Your task to perform on an android device: open app "Venmo" (install if not already installed), go to login, and select forgot password Image 0: 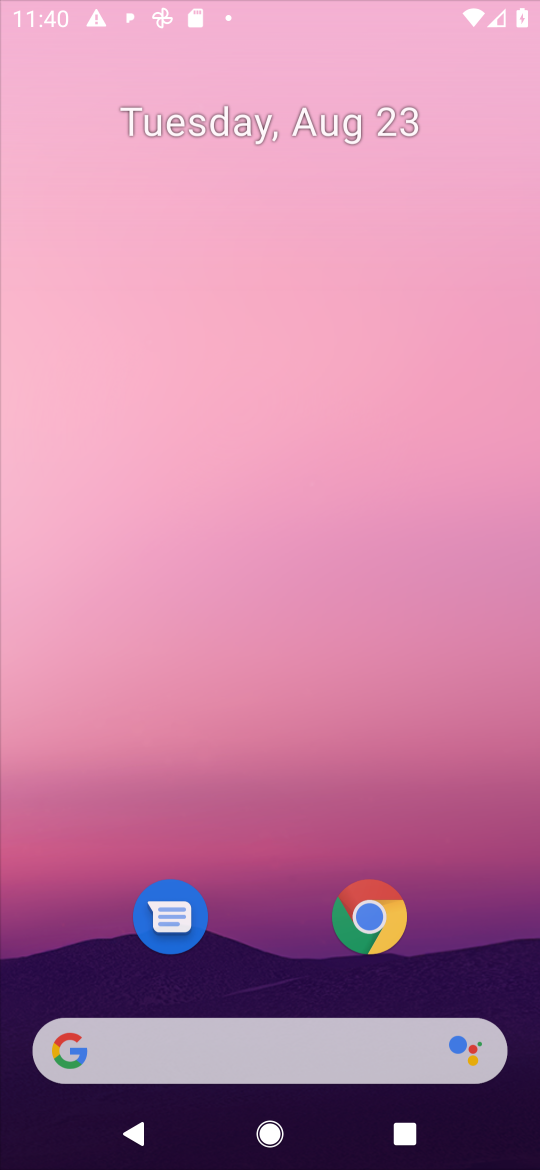
Step 0: press home button
Your task to perform on an android device: open app "Venmo" (install if not already installed), go to login, and select forgot password Image 1: 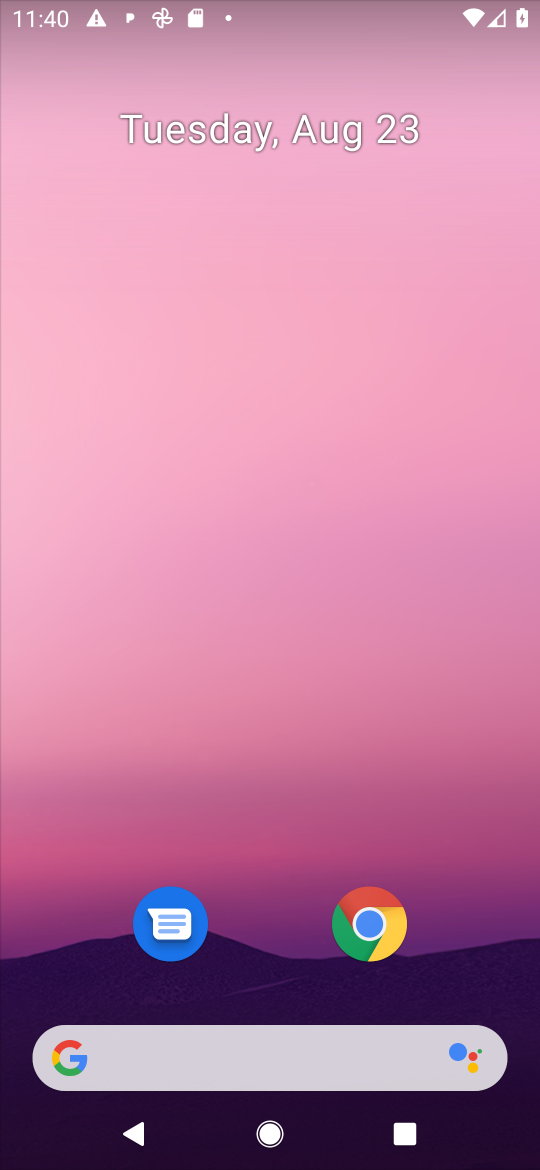
Step 1: drag from (461, 969) to (446, 102)
Your task to perform on an android device: open app "Venmo" (install if not already installed), go to login, and select forgot password Image 2: 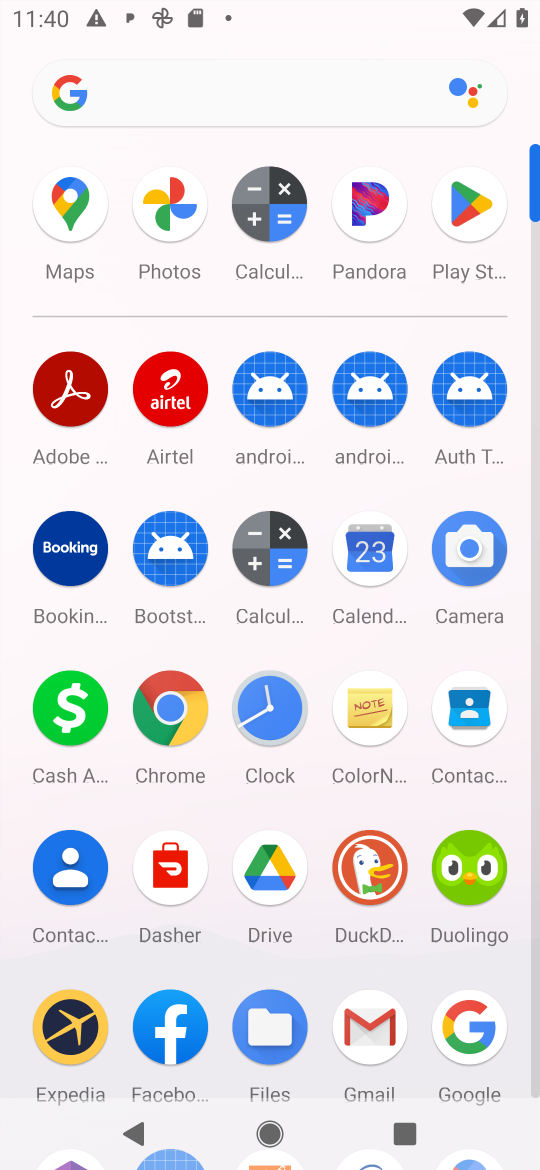
Step 2: click (468, 208)
Your task to perform on an android device: open app "Venmo" (install if not already installed), go to login, and select forgot password Image 3: 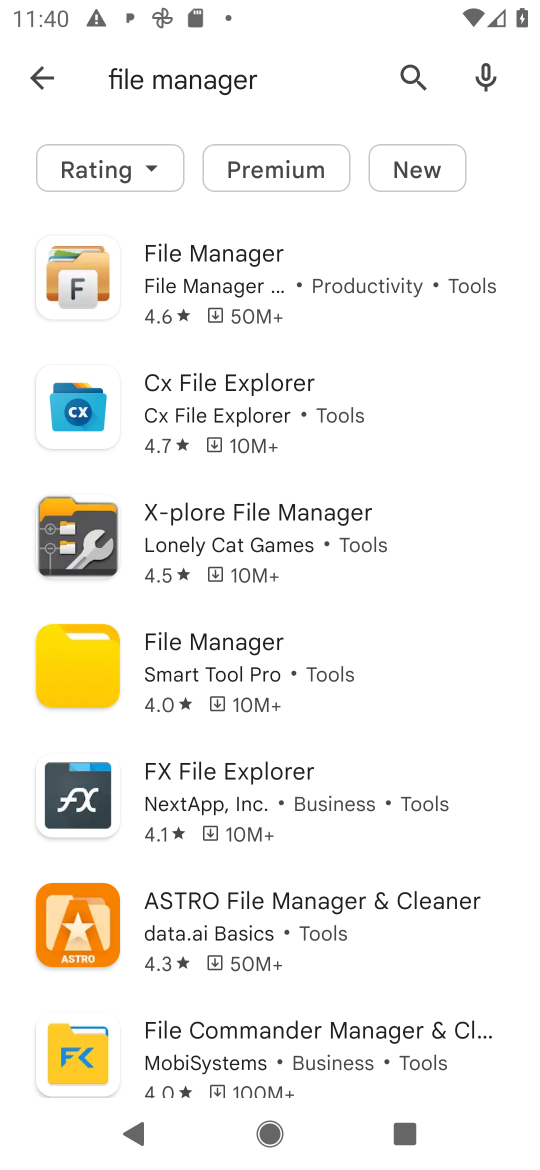
Step 3: press back button
Your task to perform on an android device: open app "Venmo" (install if not already installed), go to login, and select forgot password Image 4: 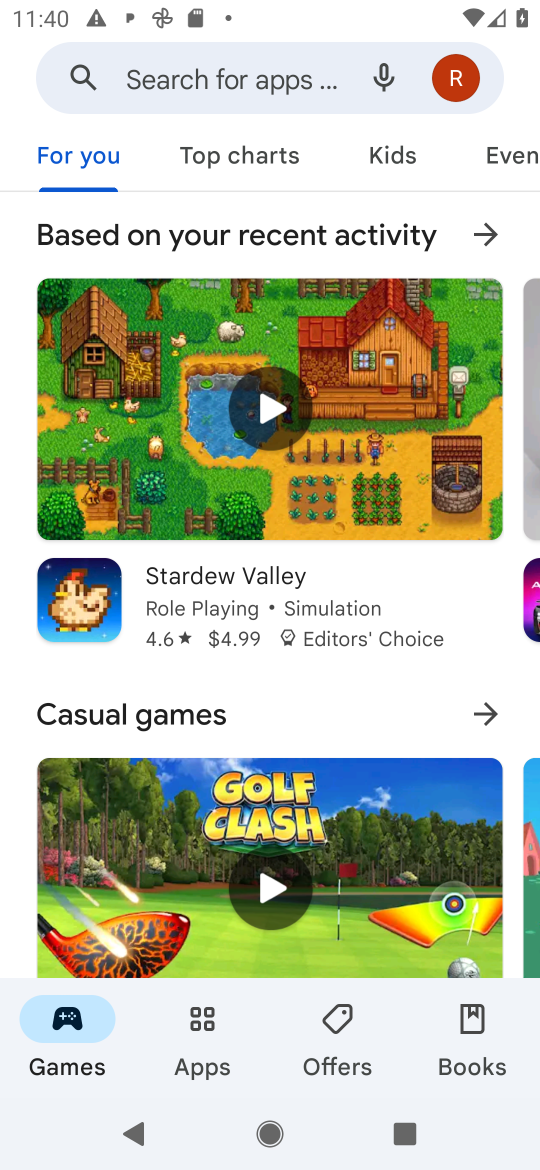
Step 4: click (208, 77)
Your task to perform on an android device: open app "Venmo" (install if not already installed), go to login, and select forgot password Image 5: 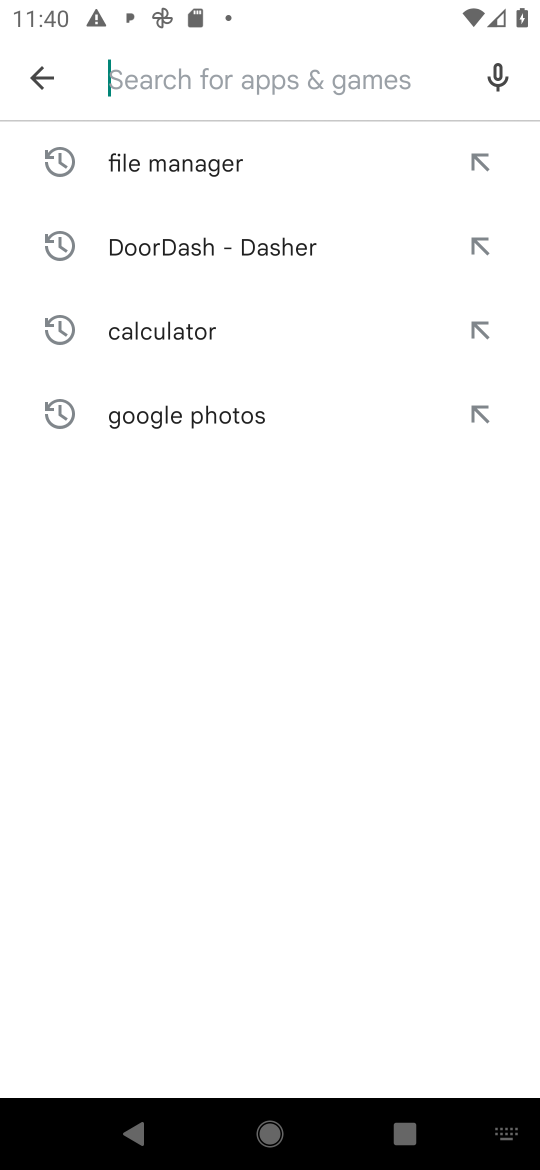
Step 5: press enter
Your task to perform on an android device: open app "Venmo" (install if not already installed), go to login, and select forgot password Image 6: 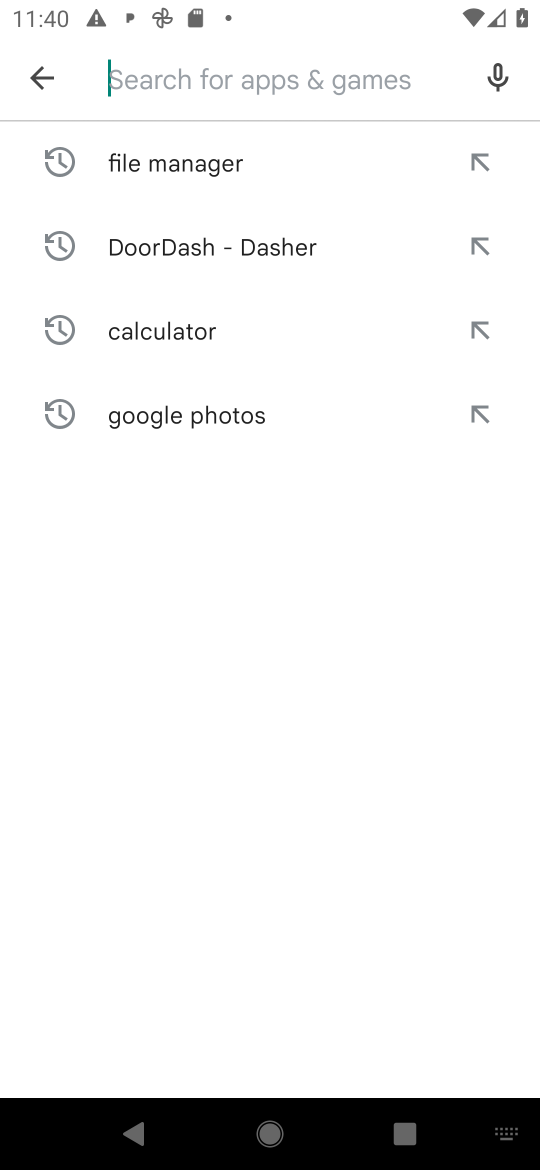
Step 6: type "venmo"
Your task to perform on an android device: open app "Venmo" (install if not already installed), go to login, and select forgot password Image 7: 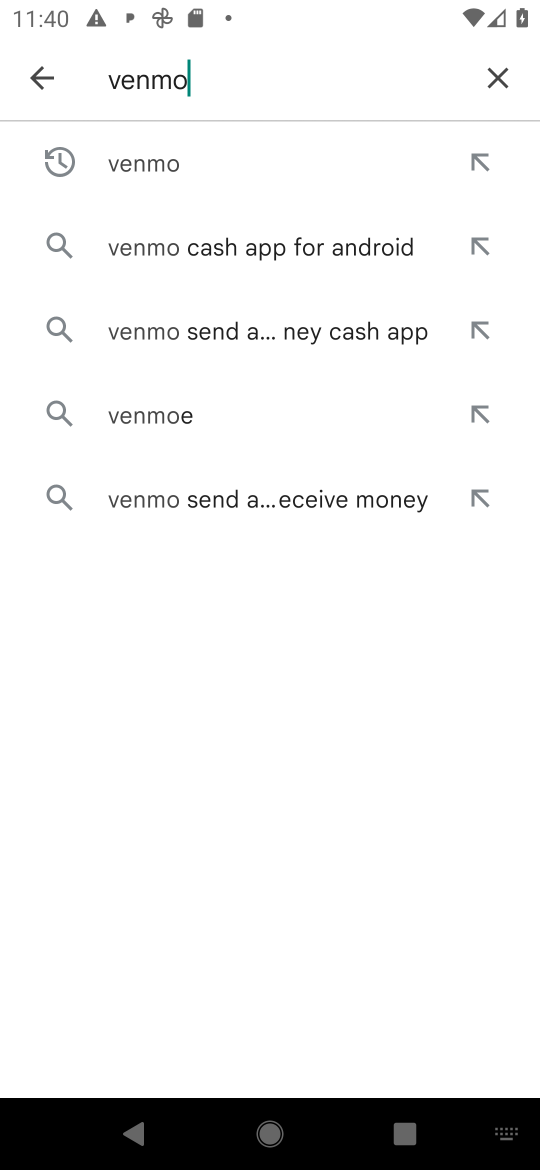
Step 7: click (184, 168)
Your task to perform on an android device: open app "Venmo" (install if not already installed), go to login, and select forgot password Image 8: 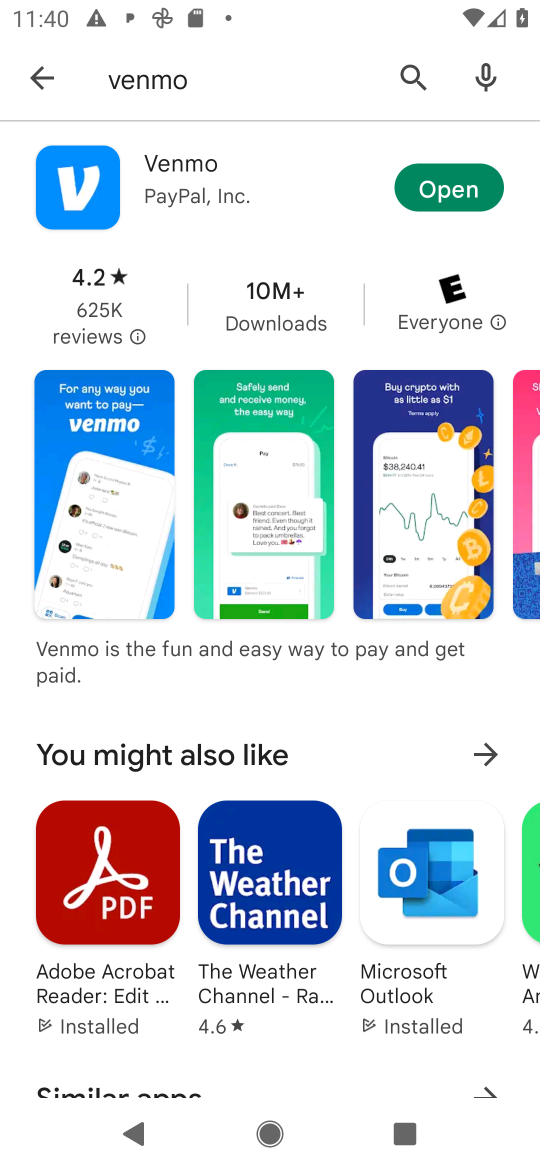
Step 8: click (450, 195)
Your task to perform on an android device: open app "Venmo" (install if not already installed), go to login, and select forgot password Image 9: 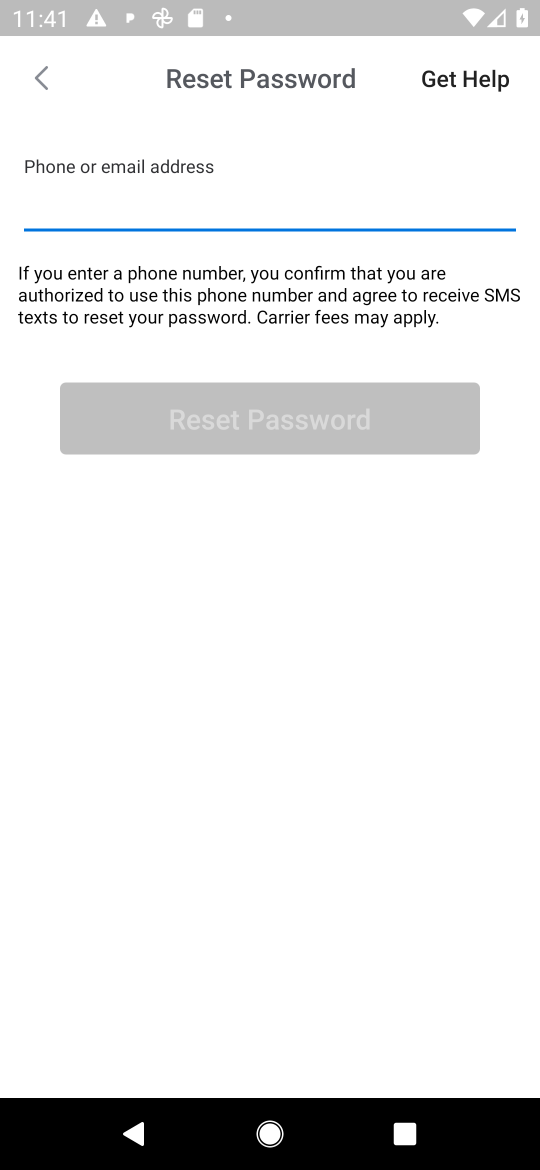
Step 9: task complete